Your task to perform on an android device: Toggle the flashlight Image 0: 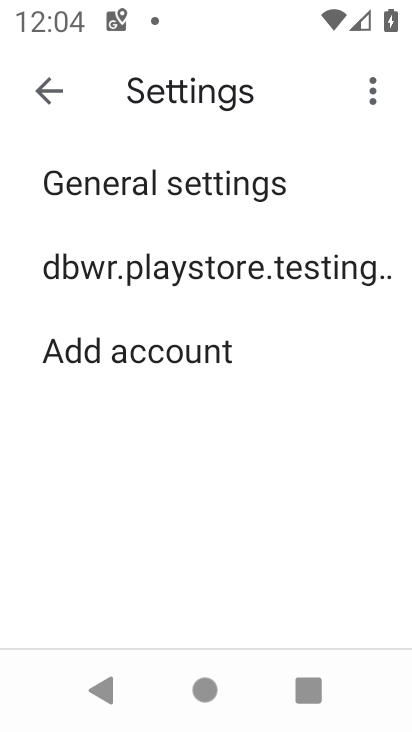
Step 0: press home button
Your task to perform on an android device: Toggle the flashlight Image 1: 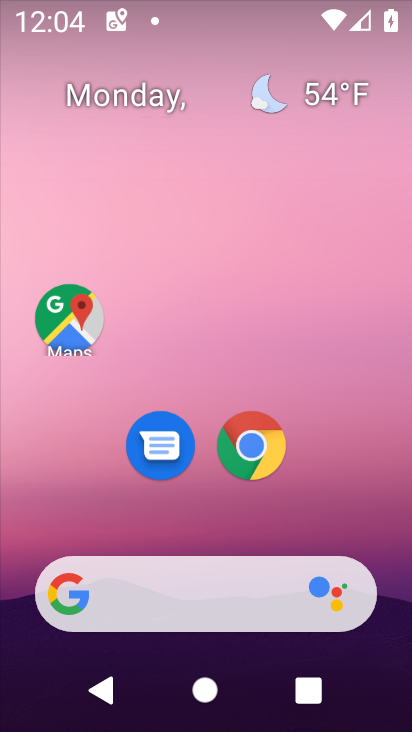
Step 1: drag from (336, 498) to (354, 54)
Your task to perform on an android device: Toggle the flashlight Image 2: 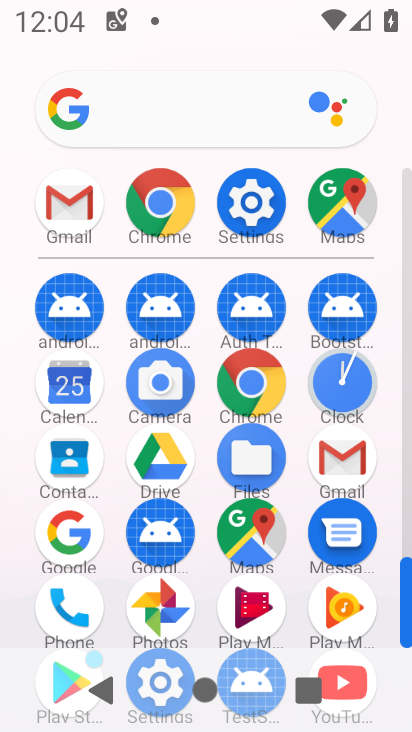
Step 2: click (250, 218)
Your task to perform on an android device: Toggle the flashlight Image 3: 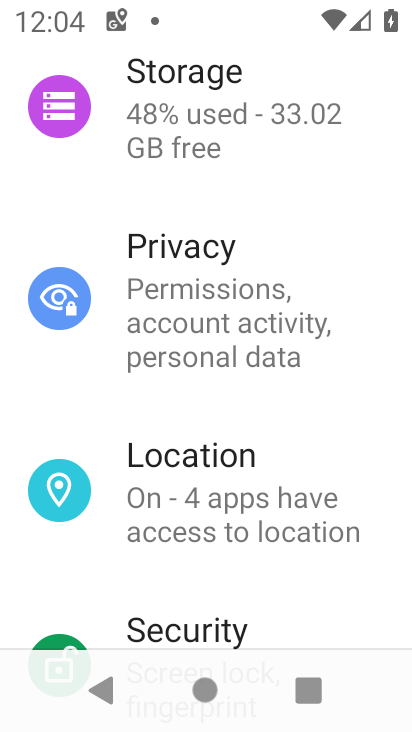
Step 3: drag from (314, 175) to (340, 594)
Your task to perform on an android device: Toggle the flashlight Image 4: 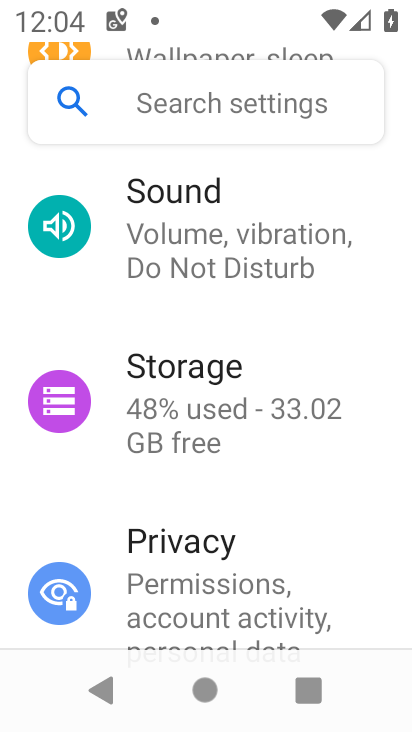
Step 4: click (232, 105)
Your task to perform on an android device: Toggle the flashlight Image 5: 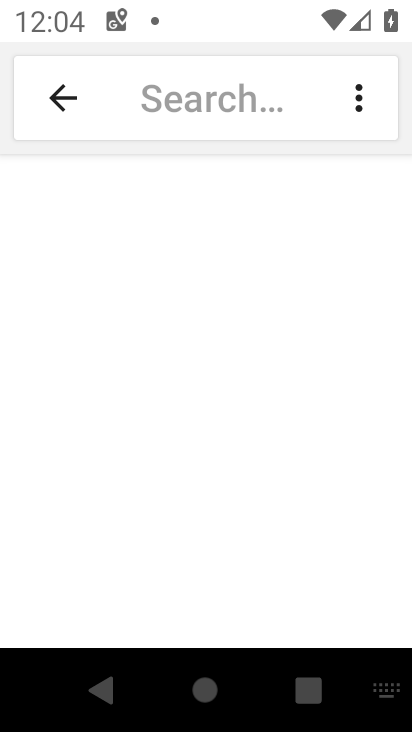
Step 5: type "flashlight"
Your task to perform on an android device: Toggle the flashlight Image 6: 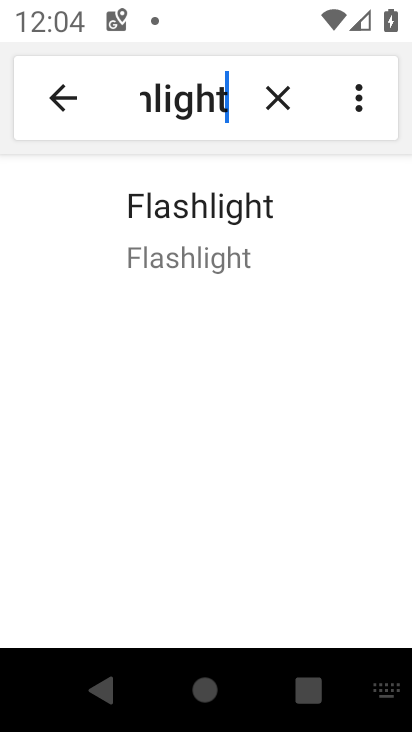
Step 6: click (192, 209)
Your task to perform on an android device: Toggle the flashlight Image 7: 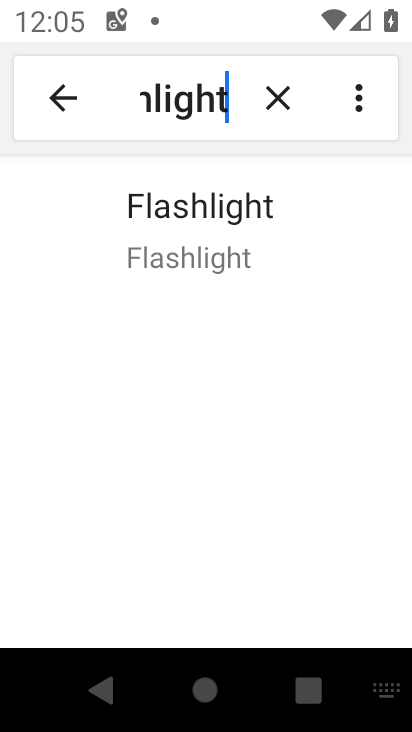
Step 7: task complete